Your task to perform on an android device: change the clock display to digital Image 0: 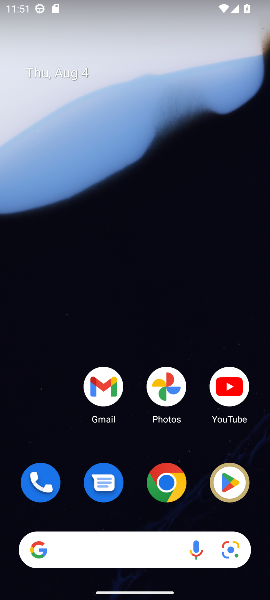
Step 0: drag from (139, 452) to (120, 76)
Your task to perform on an android device: change the clock display to digital Image 1: 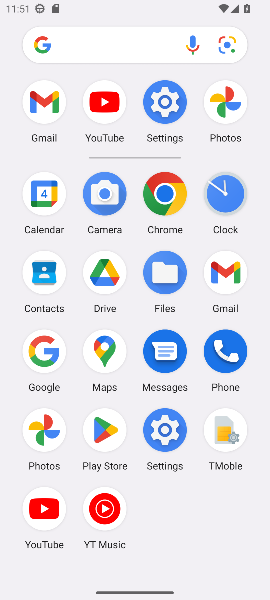
Step 1: click (226, 208)
Your task to perform on an android device: change the clock display to digital Image 2: 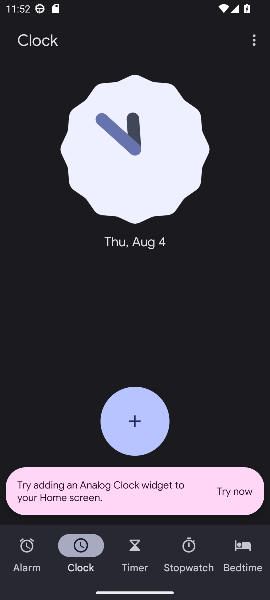
Step 2: click (251, 43)
Your task to perform on an android device: change the clock display to digital Image 3: 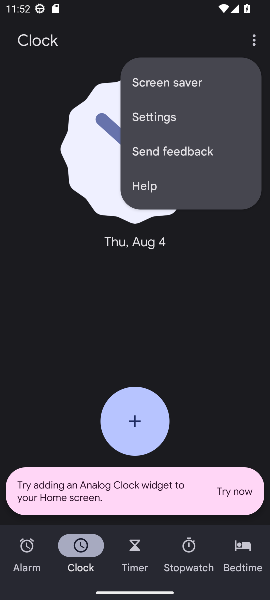
Step 3: click (177, 115)
Your task to perform on an android device: change the clock display to digital Image 4: 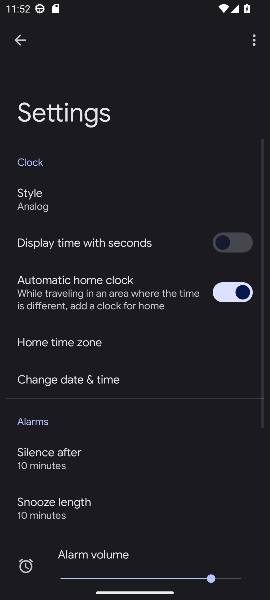
Step 4: click (82, 194)
Your task to perform on an android device: change the clock display to digital Image 5: 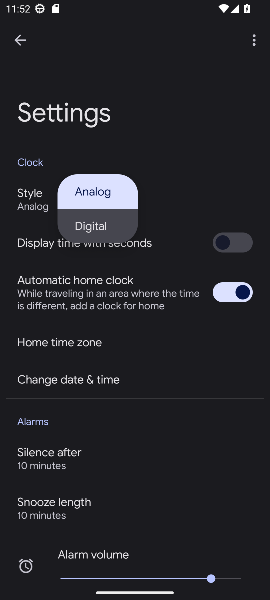
Step 5: click (94, 221)
Your task to perform on an android device: change the clock display to digital Image 6: 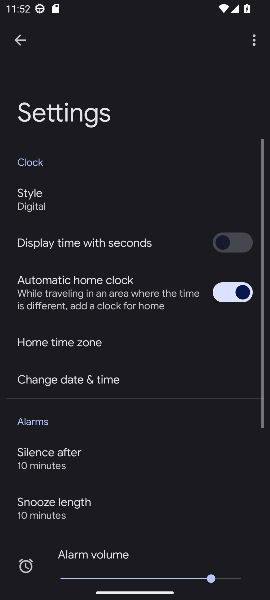
Step 6: task complete